Your task to perform on an android device: Search for pizza restaurants on Maps Image 0: 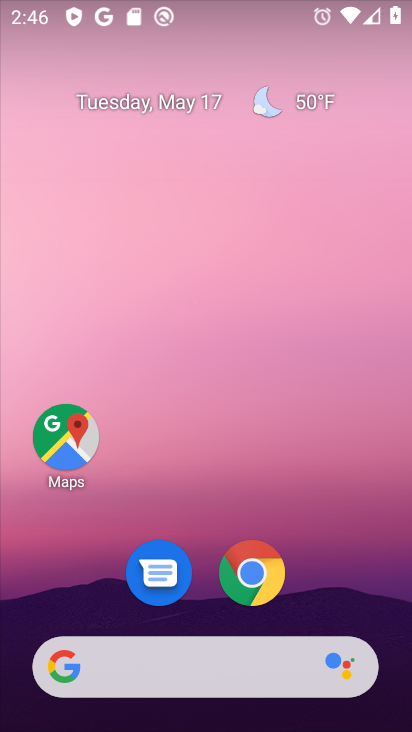
Step 0: click (61, 448)
Your task to perform on an android device: Search for pizza restaurants on Maps Image 1: 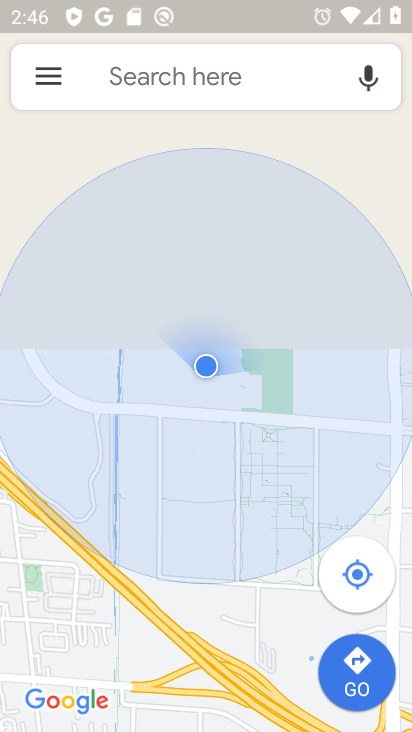
Step 1: click (245, 72)
Your task to perform on an android device: Search for pizza restaurants on Maps Image 2: 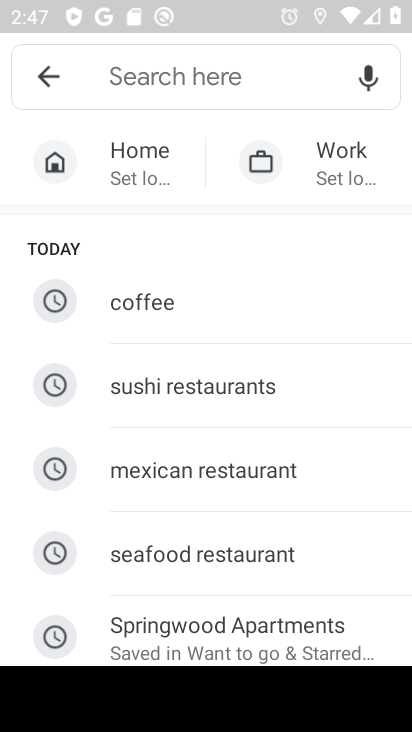
Step 2: type "pizza  restaurants"
Your task to perform on an android device: Search for pizza restaurants on Maps Image 3: 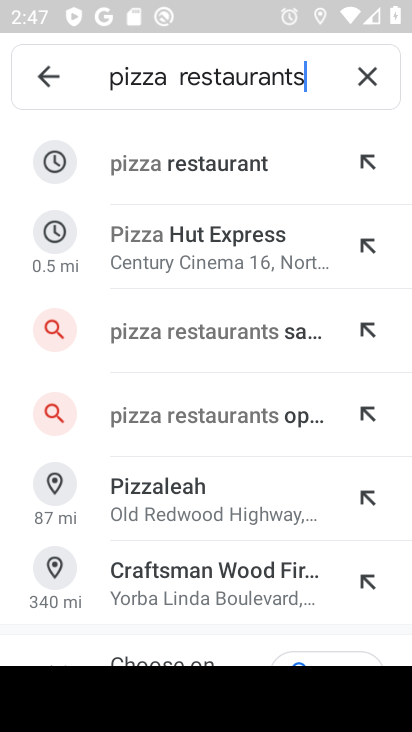
Step 3: press enter
Your task to perform on an android device: Search for pizza restaurants on Maps Image 4: 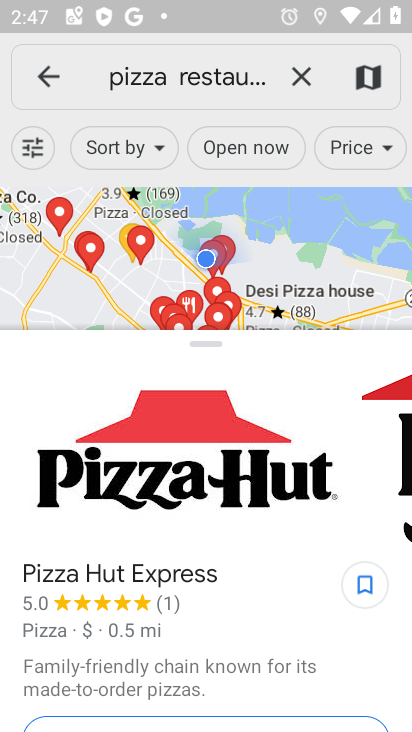
Step 4: task complete